Your task to perform on an android device: toggle wifi Image 0: 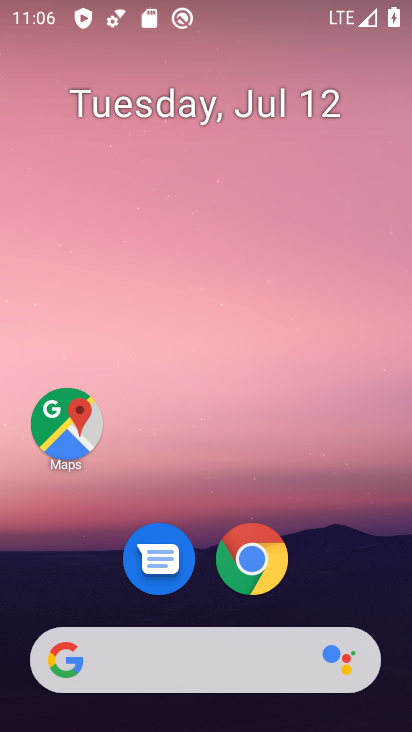
Step 0: drag from (245, 670) to (184, 182)
Your task to perform on an android device: toggle wifi Image 1: 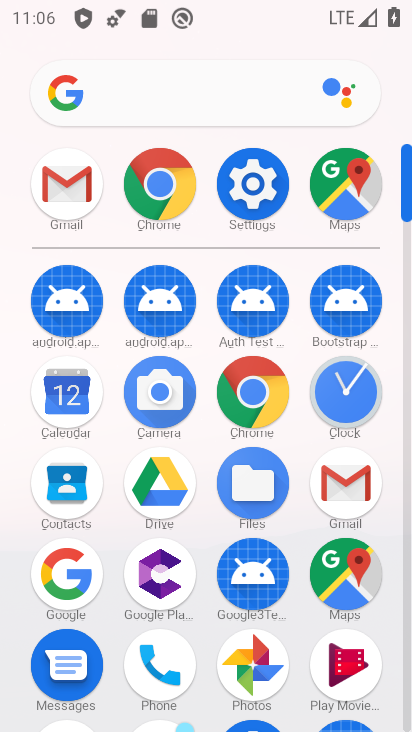
Step 1: click (252, 204)
Your task to perform on an android device: toggle wifi Image 2: 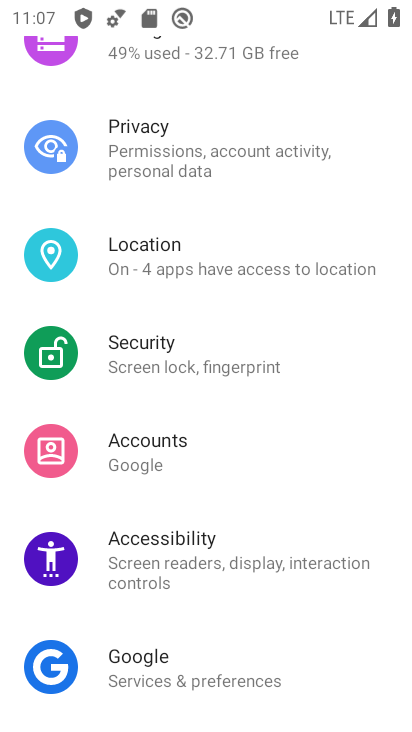
Step 2: drag from (252, 204) to (123, 676)
Your task to perform on an android device: toggle wifi Image 3: 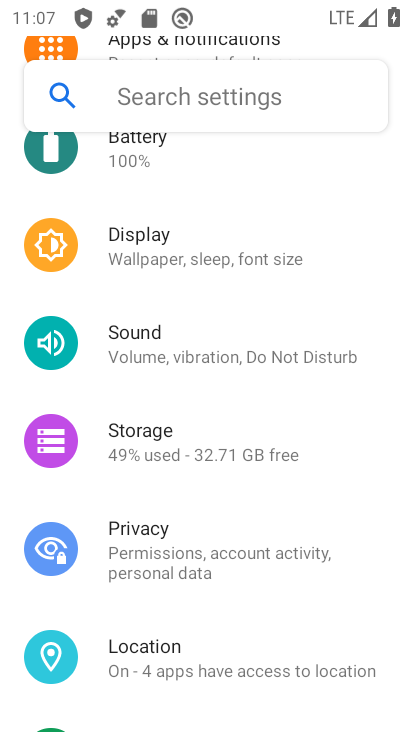
Step 3: drag from (197, 201) to (175, 526)
Your task to perform on an android device: toggle wifi Image 4: 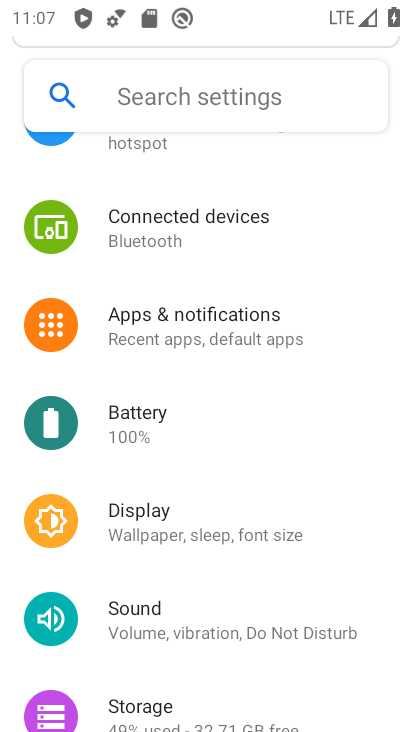
Step 4: drag from (179, 325) to (116, 606)
Your task to perform on an android device: toggle wifi Image 5: 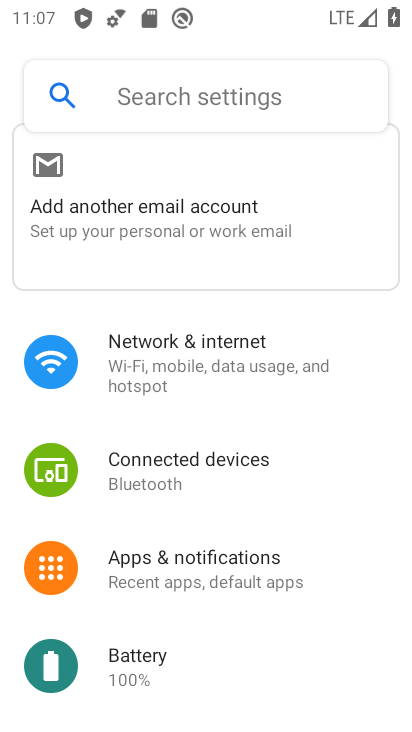
Step 5: click (186, 354)
Your task to perform on an android device: toggle wifi Image 6: 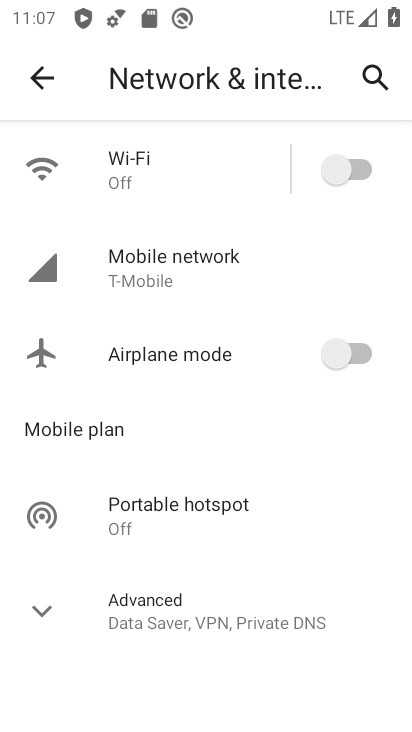
Step 6: click (358, 177)
Your task to perform on an android device: toggle wifi Image 7: 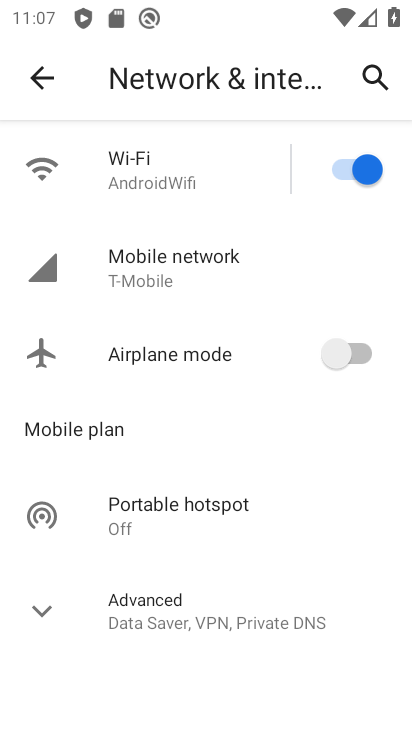
Step 7: task complete